Your task to perform on an android device: Open Chrome and go to the settings page Image 0: 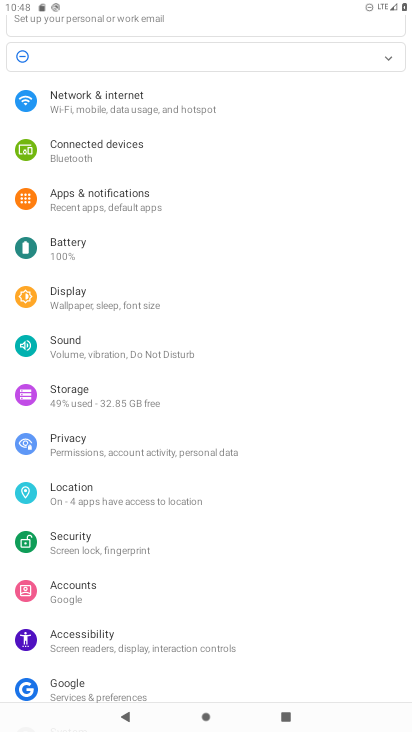
Step 0: press home button
Your task to perform on an android device: Open Chrome and go to the settings page Image 1: 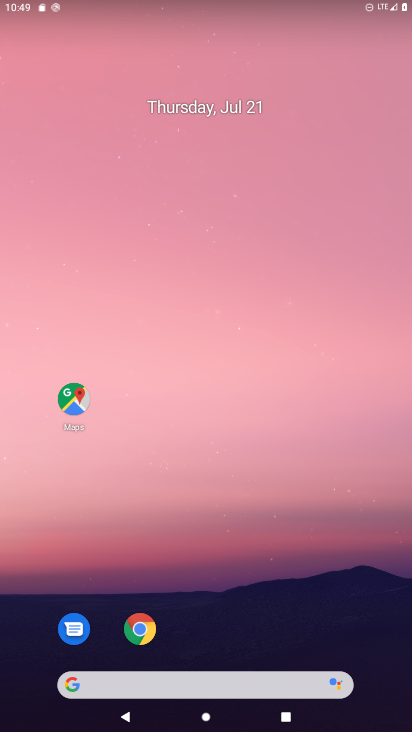
Step 1: click (140, 633)
Your task to perform on an android device: Open Chrome and go to the settings page Image 2: 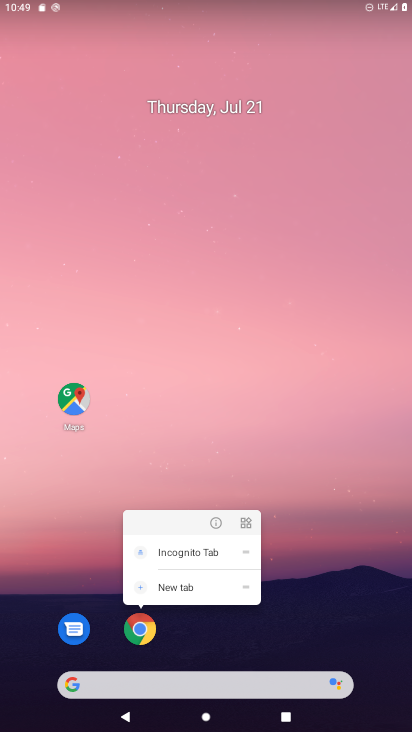
Step 2: click (137, 628)
Your task to perform on an android device: Open Chrome and go to the settings page Image 3: 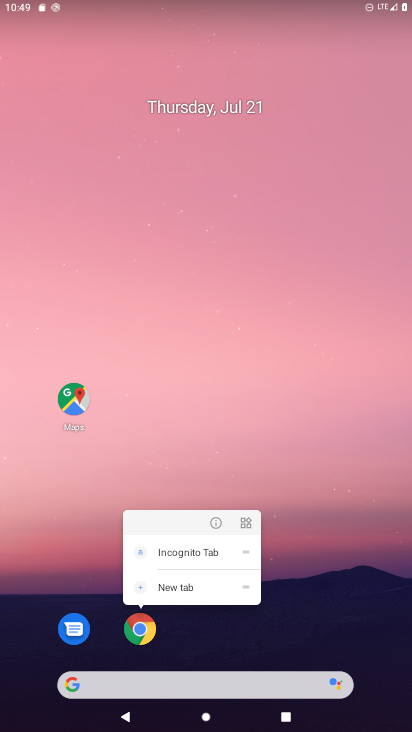
Step 3: click (135, 623)
Your task to perform on an android device: Open Chrome and go to the settings page Image 4: 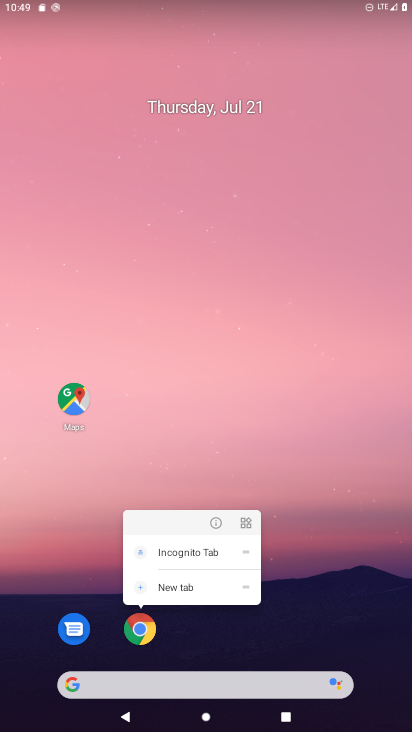
Step 4: click (134, 635)
Your task to perform on an android device: Open Chrome and go to the settings page Image 5: 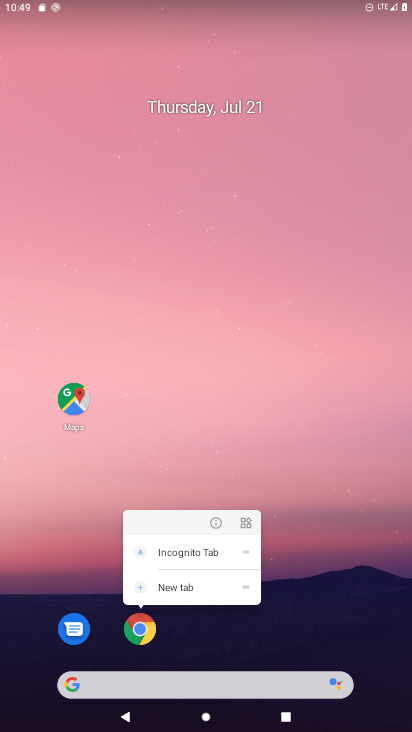
Step 5: click (143, 636)
Your task to perform on an android device: Open Chrome and go to the settings page Image 6: 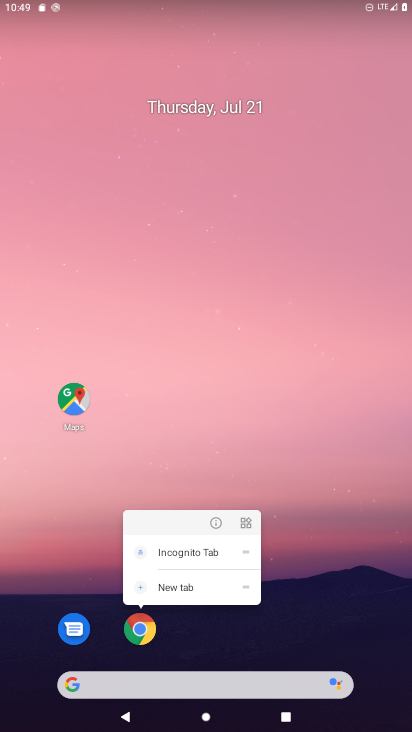
Step 6: click (142, 637)
Your task to perform on an android device: Open Chrome and go to the settings page Image 7: 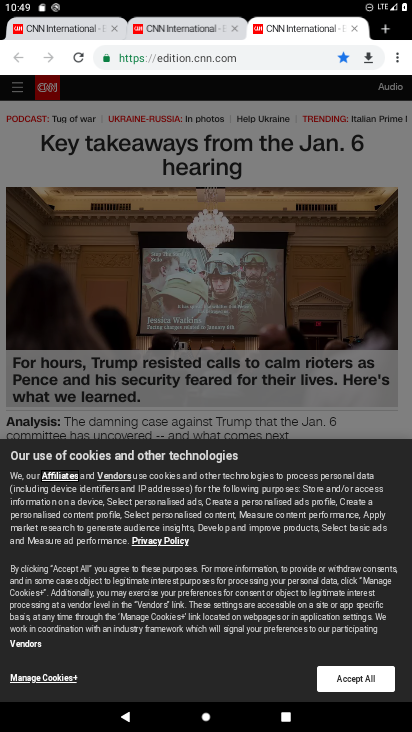
Step 7: task complete